Your task to perform on an android device: Go to notification settings Image 0: 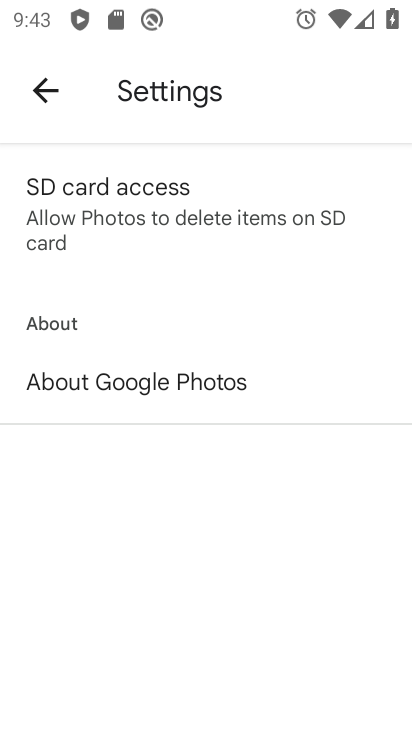
Step 0: press home button
Your task to perform on an android device: Go to notification settings Image 1: 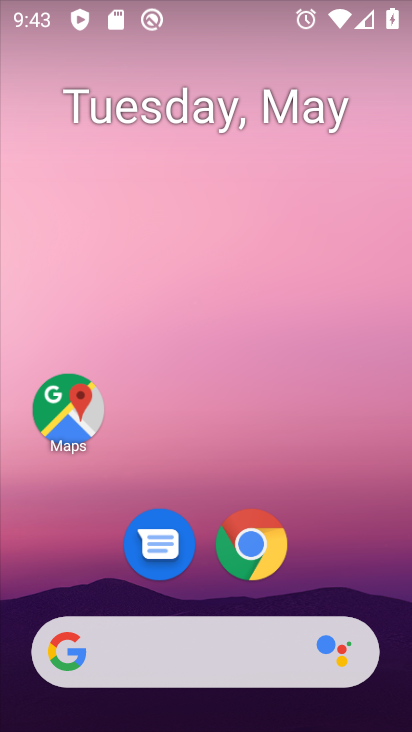
Step 1: drag from (317, 546) to (340, 169)
Your task to perform on an android device: Go to notification settings Image 2: 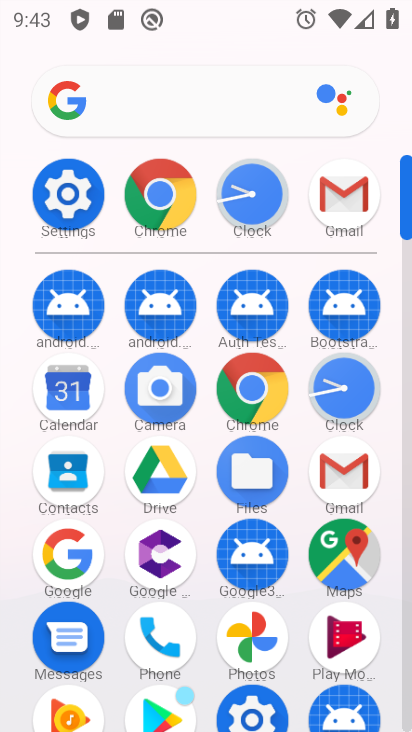
Step 2: click (60, 180)
Your task to perform on an android device: Go to notification settings Image 3: 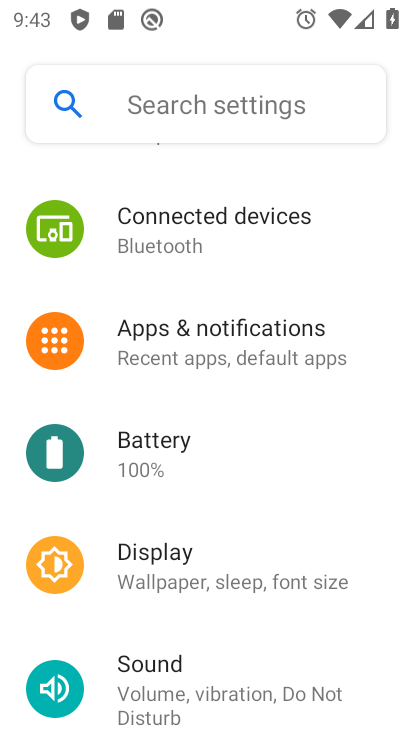
Step 3: click (258, 346)
Your task to perform on an android device: Go to notification settings Image 4: 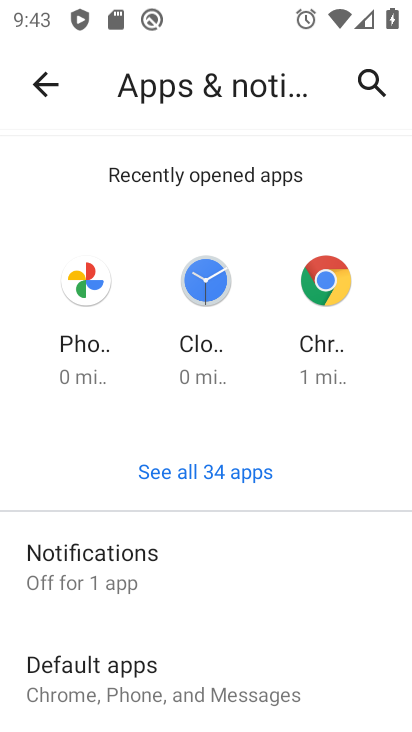
Step 4: click (166, 565)
Your task to perform on an android device: Go to notification settings Image 5: 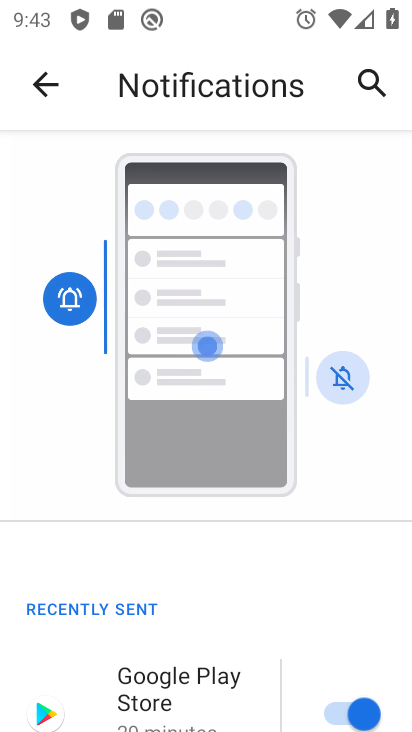
Step 5: task complete